Your task to perform on an android device: toggle show notifications on the lock screen Image 0: 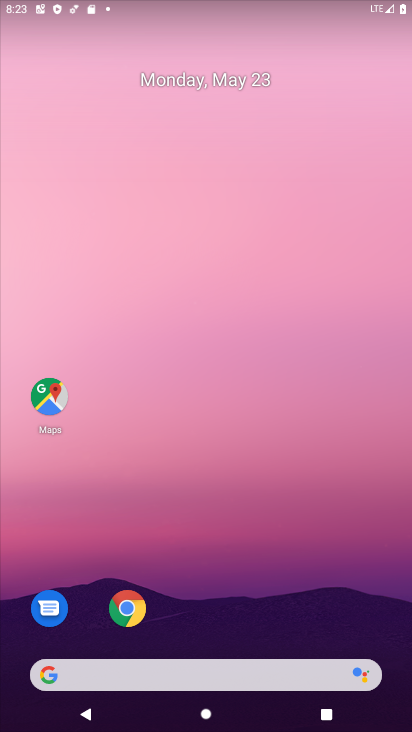
Step 0: drag from (202, 666) to (245, 192)
Your task to perform on an android device: toggle show notifications on the lock screen Image 1: 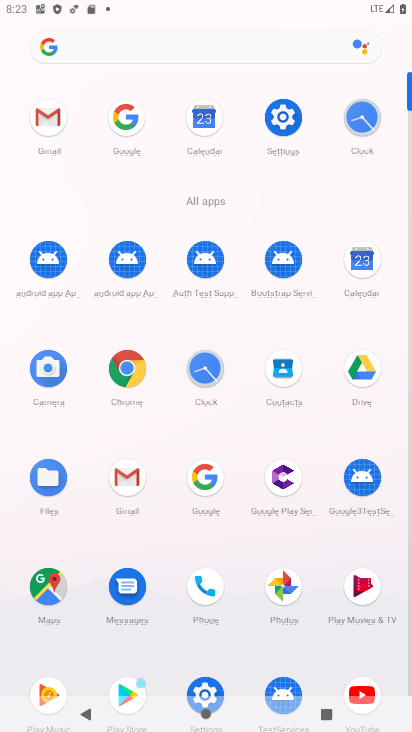
Step 1: click (269, 124)
Your task to perform on an android device: toggle show notifications on the lock screen Image 2: 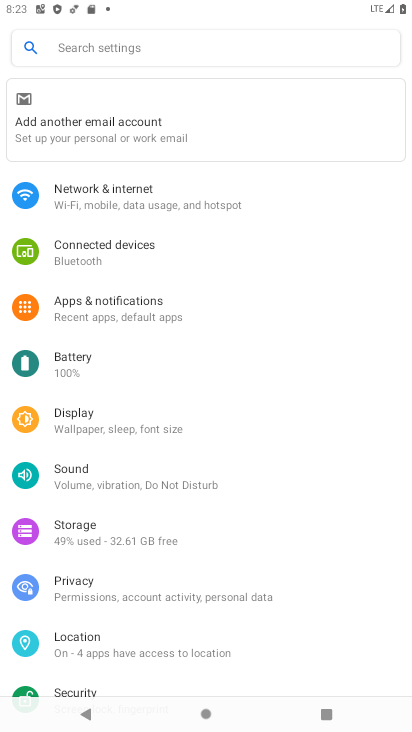
Step 2: click (163, 312)
Your task to perform on an android device: toggle show notifications on the lock screen Image 3: 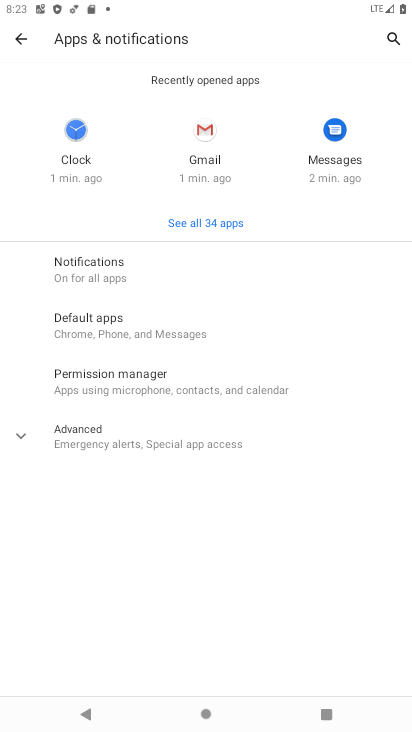
Step 3: click (110, 286)
Your task to perform on an android device: toggle show notifications on the lock screen Image 4: 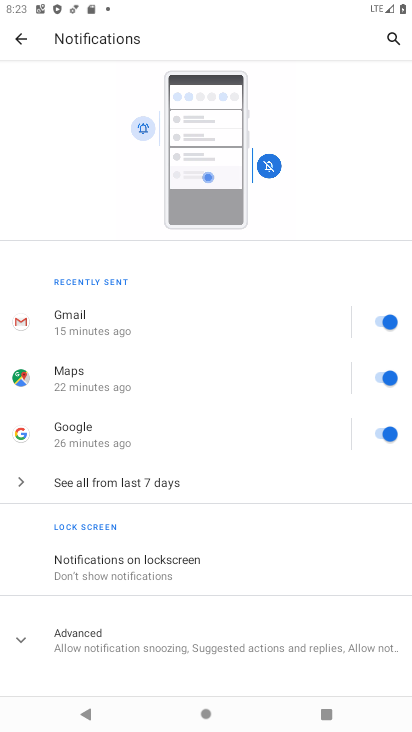
Step 4: click (208, 577)
Your task to perform on an android device: toggle show notifications on the lock screen Image 5: 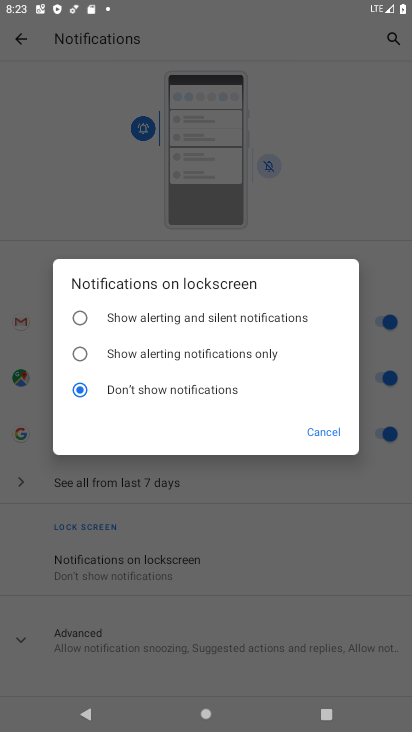
Step 5: click (149, 316)
Your task to perform on an android device: toggle show notifications on the lock screen Image 6: 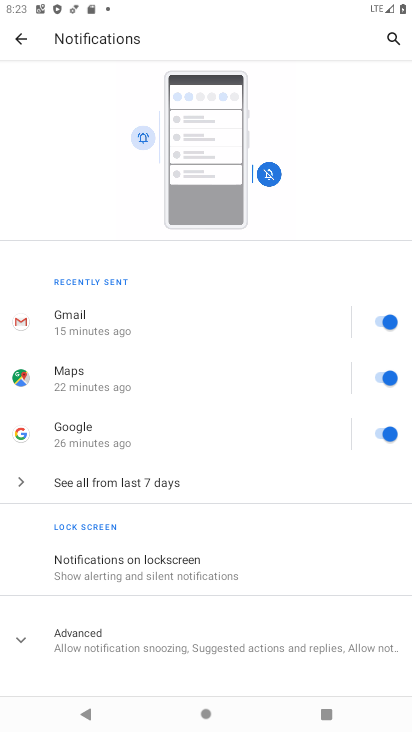
Step 6: task complete